Your task to perform on an android device: install app "Nova Launcher" Image 0: 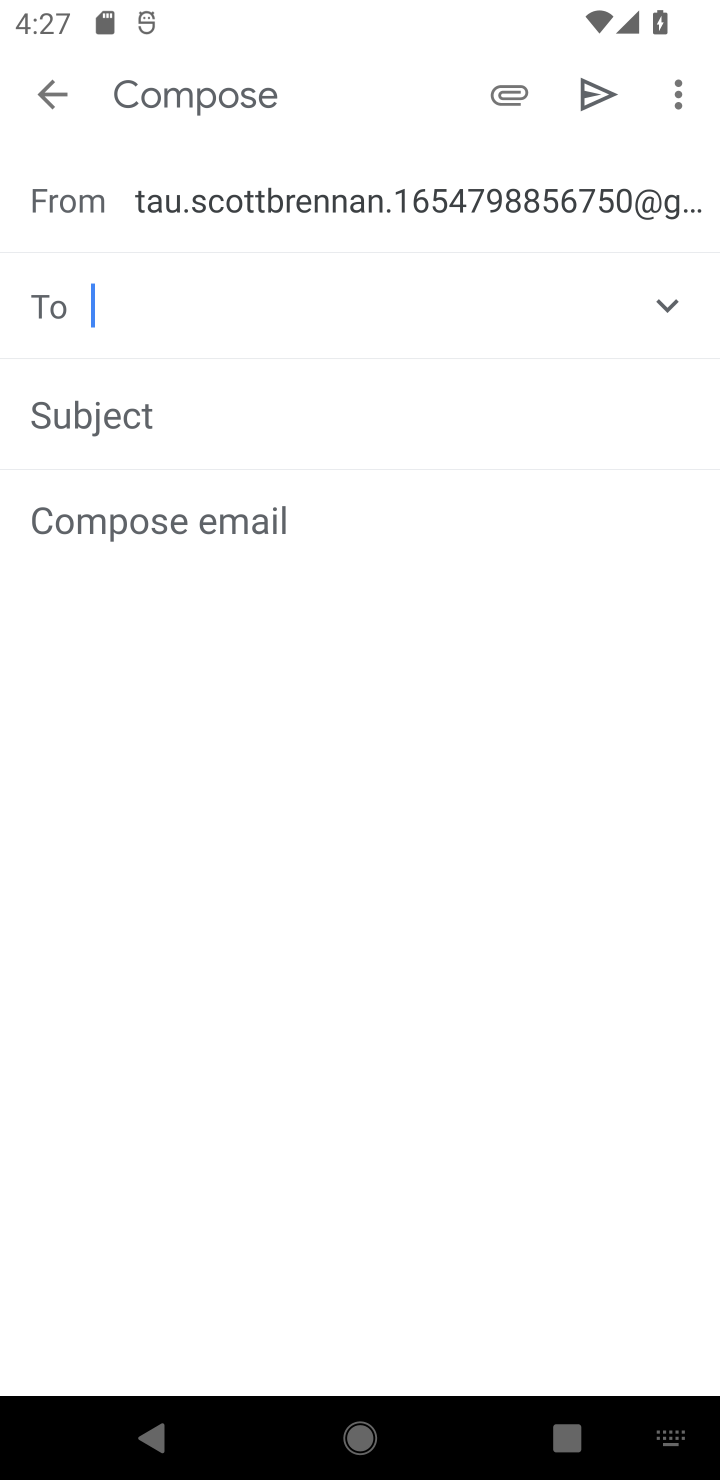
Step 0: press home button
Your task to perform on an android device: install app "Nova Launcher" Image 1: 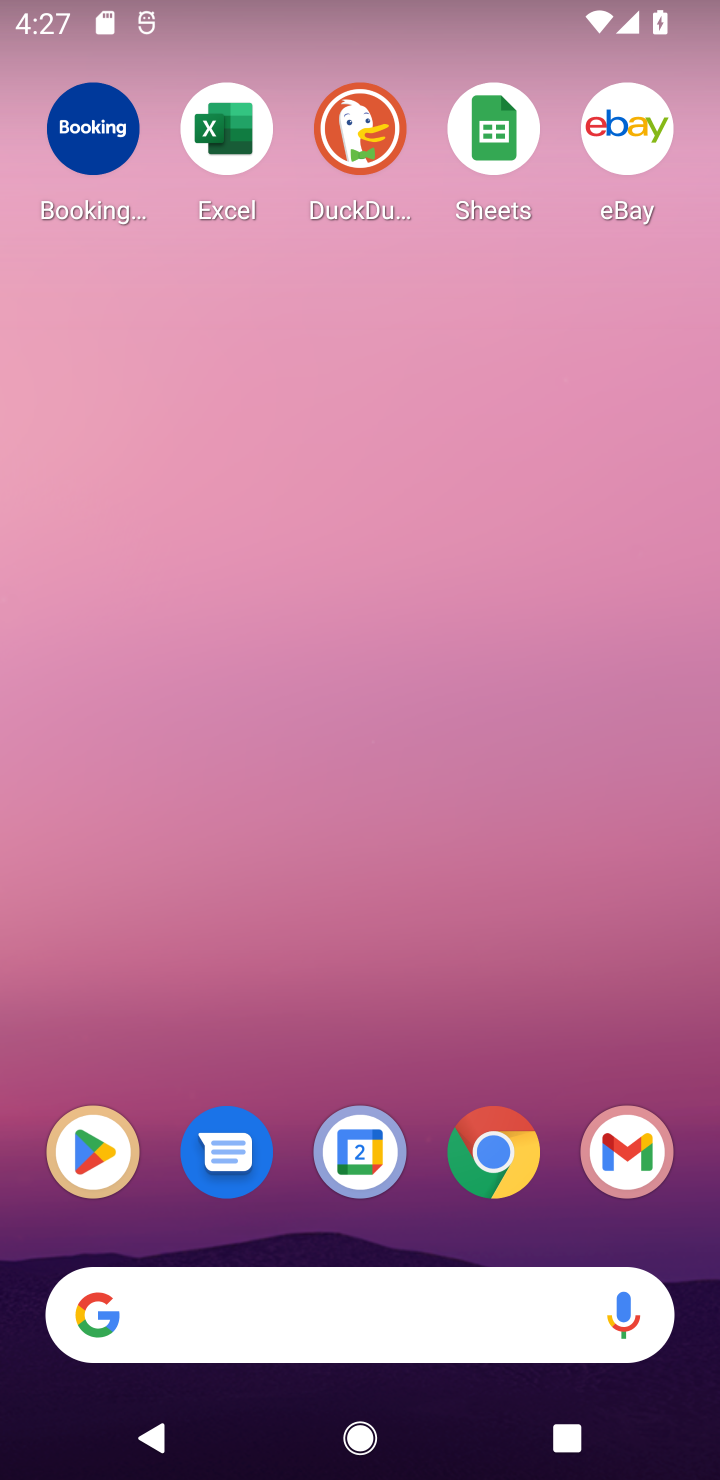
Step 1: drag from (369, 1251) to (300, 168)
Your task to perform on an android device: install app "Nova Launcher" Image 2: 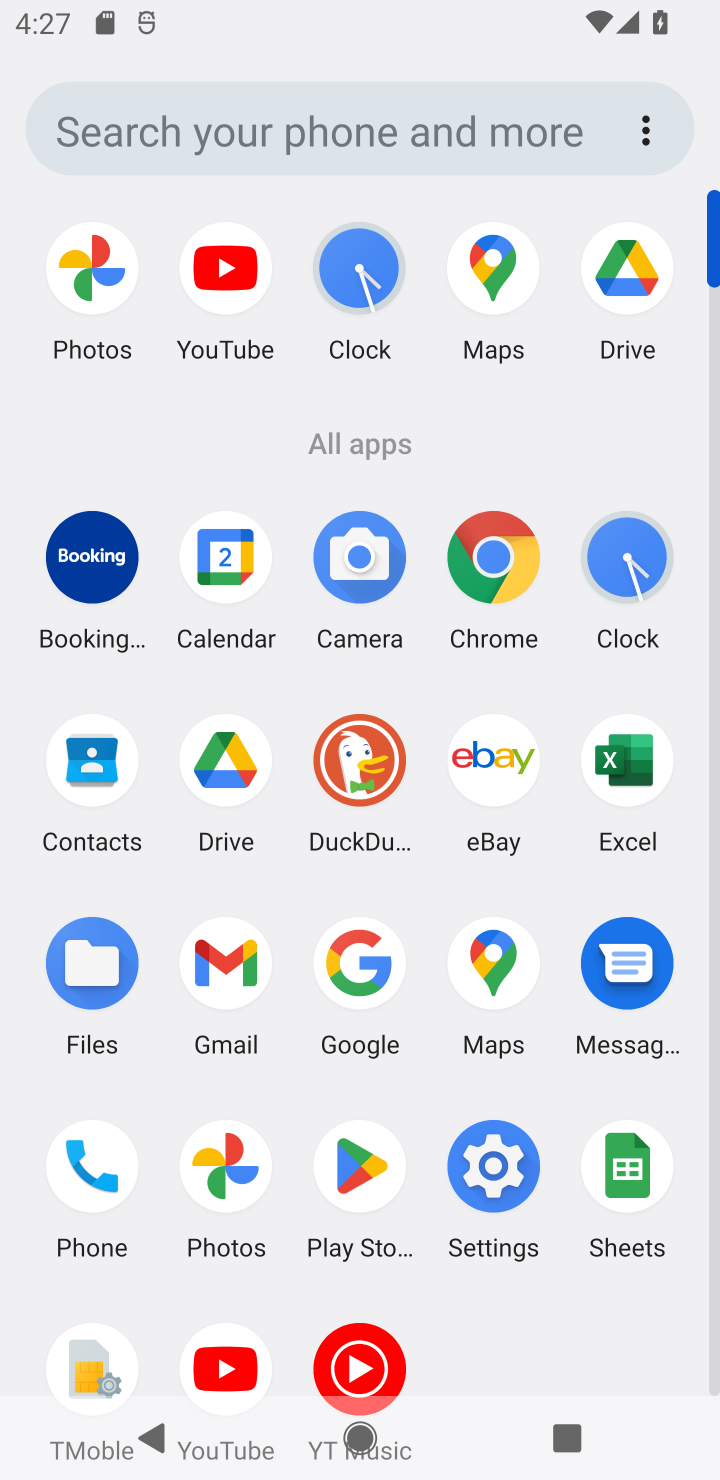
Step 2: click (314, 1164)
Your task to perform on an android device: install app "Nova Launcher" Image 3: 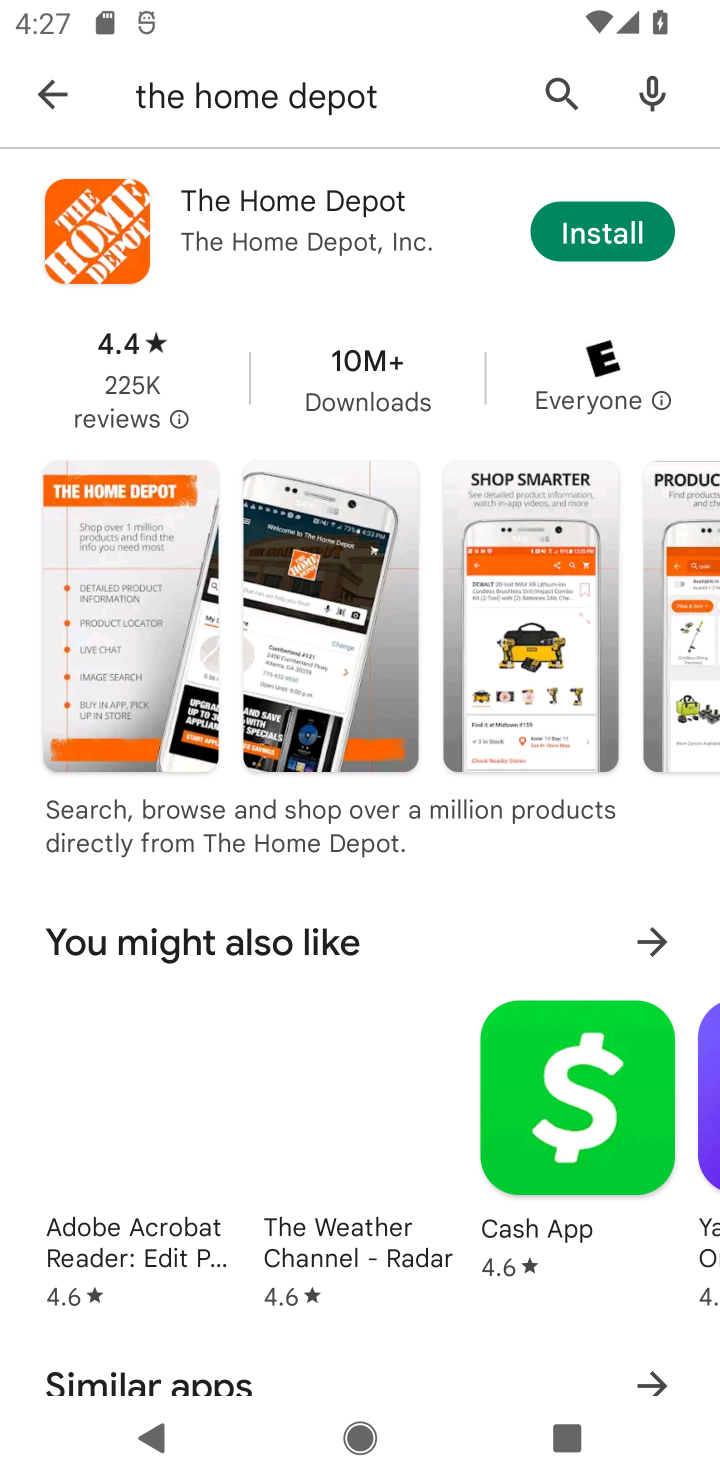
Step 3: click (53, 115)
Your task to perform on an android device: install app "Nova Launcher" Image 4: 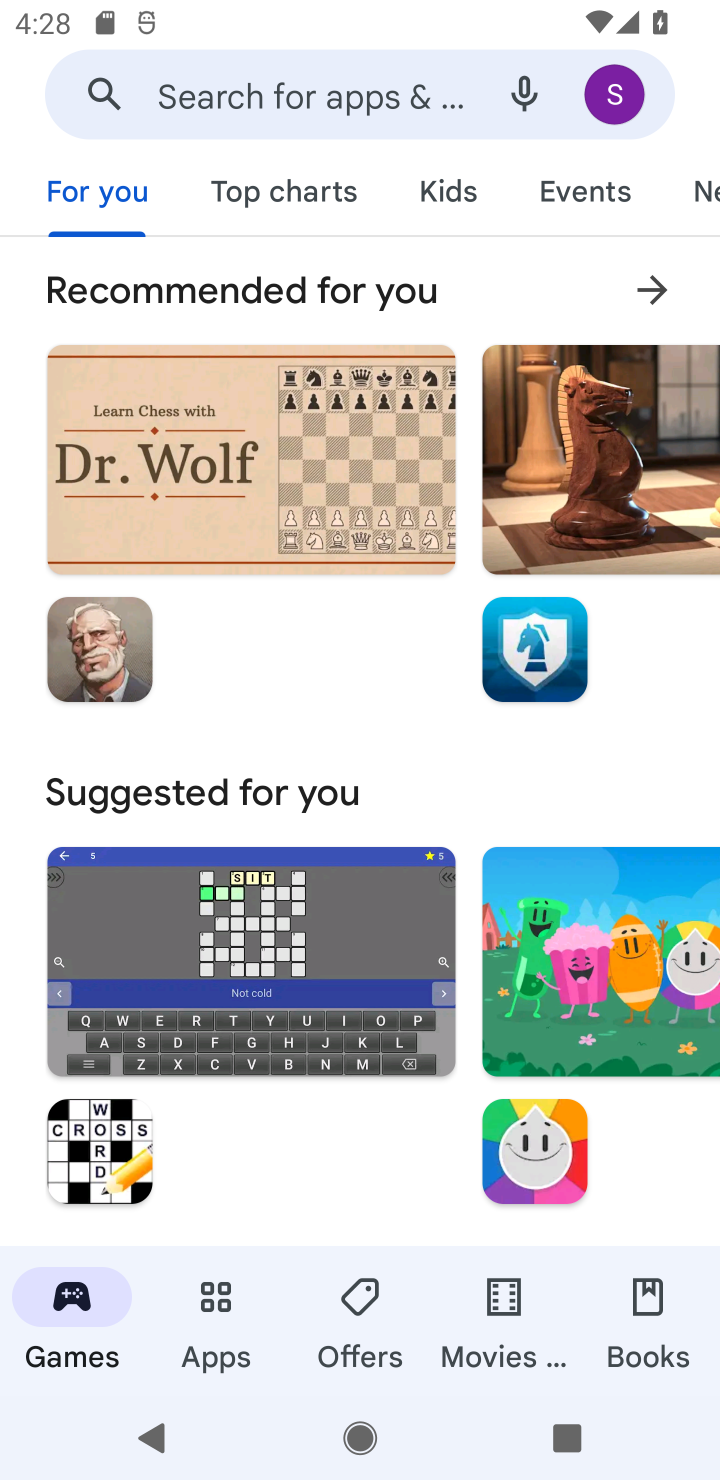
Step 4: click (184, 110)
Your task to perform on an android device: install app "Nova Launcher" Image 5: 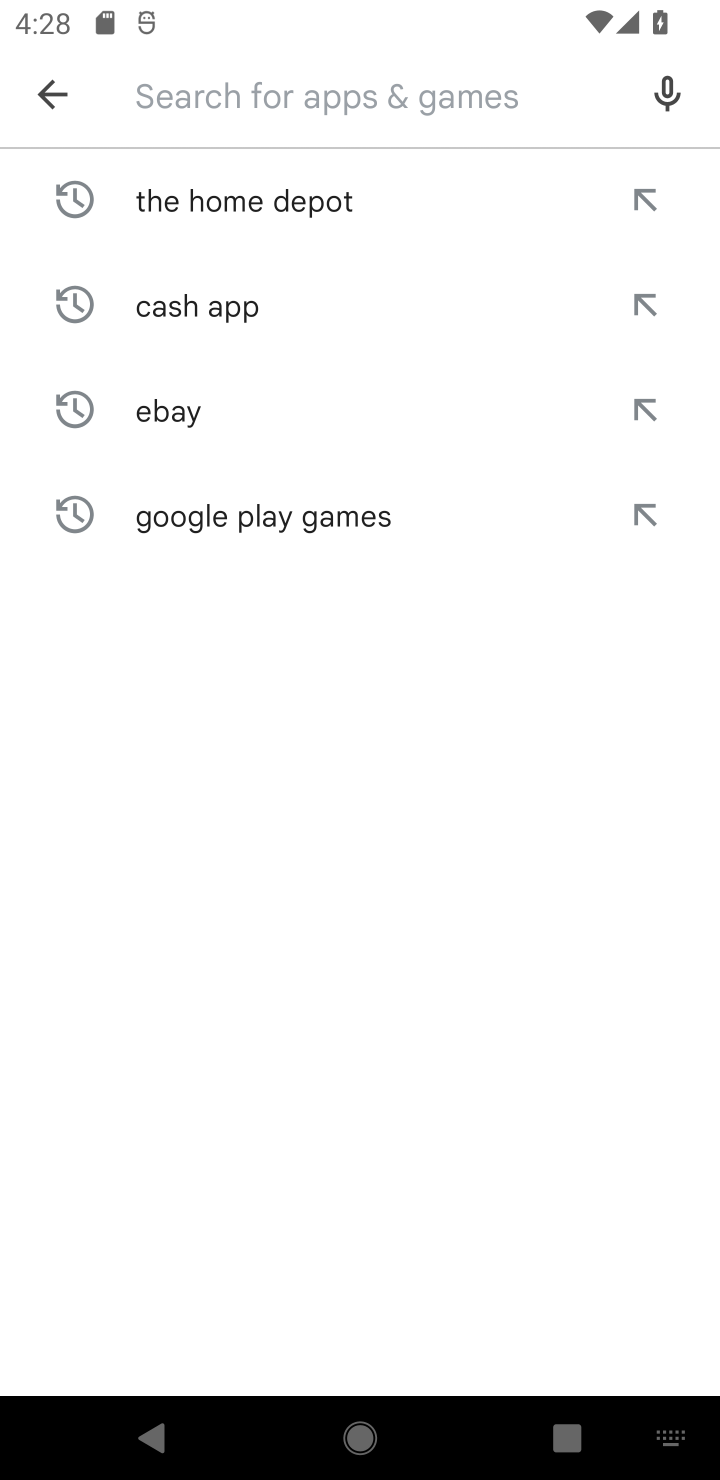
Step 5: type "Nova Launcher"
Your task to perform on an android device: install app "Nova Launcher" Image 6: 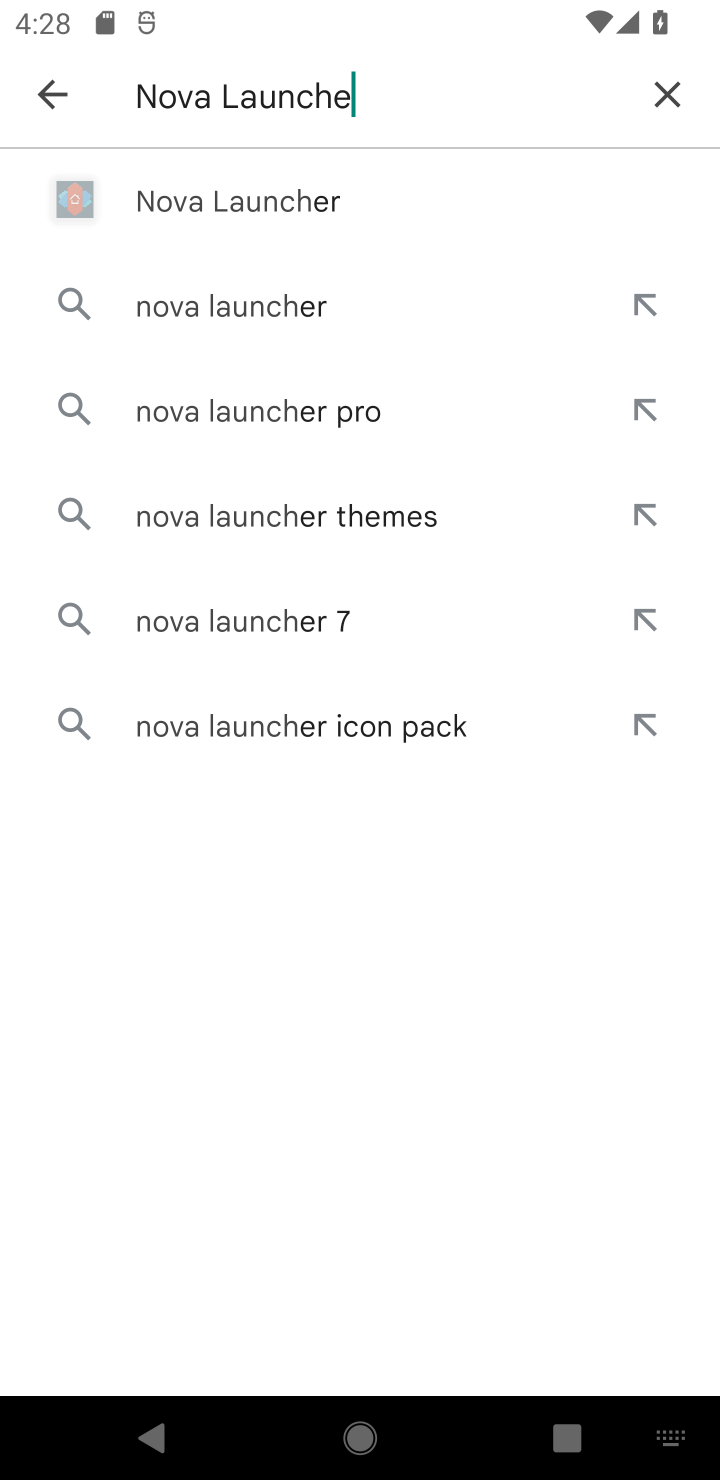
Step 6: type ""
Your task to perform on an android device: install app "Nova Launcher" Image 7: 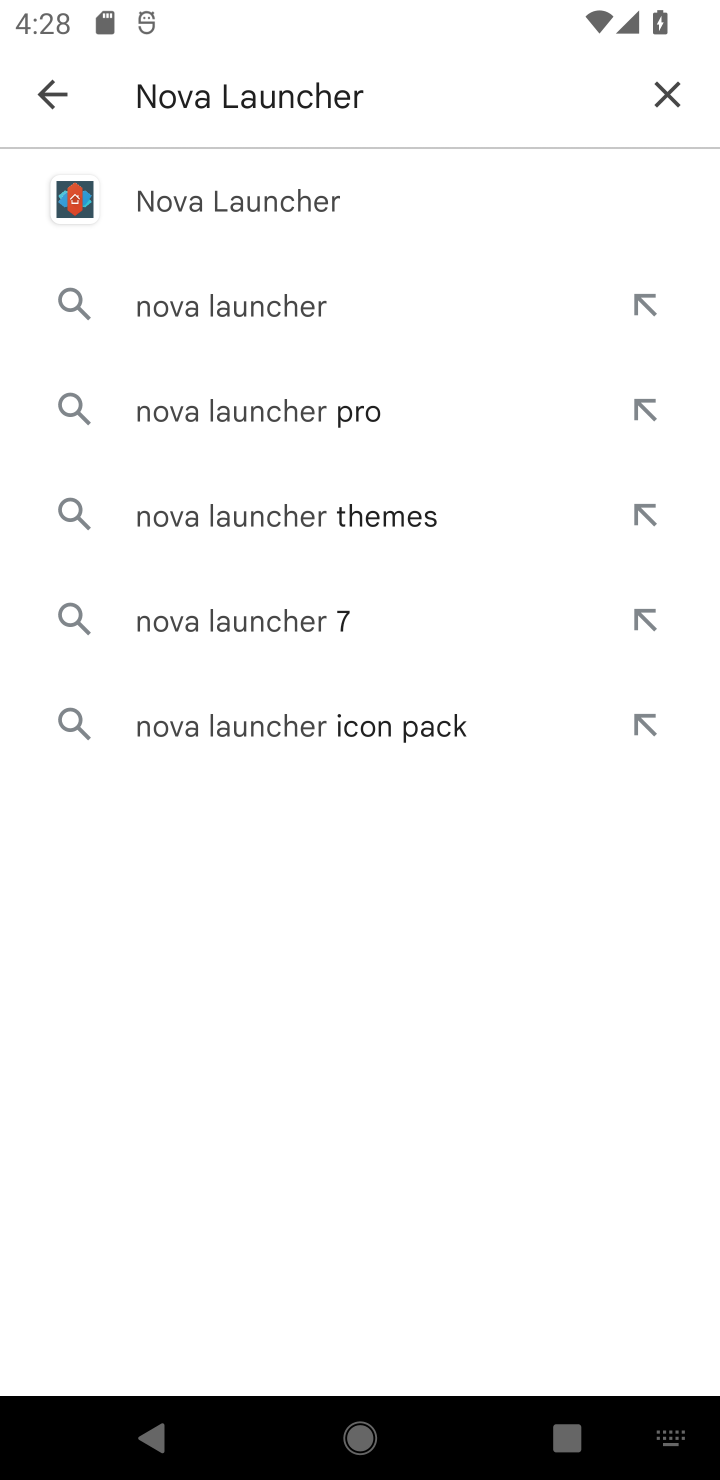
Step 7: click (259, 189)
Your task to perform on an android device: install app "Nova Launcher" Image 8: 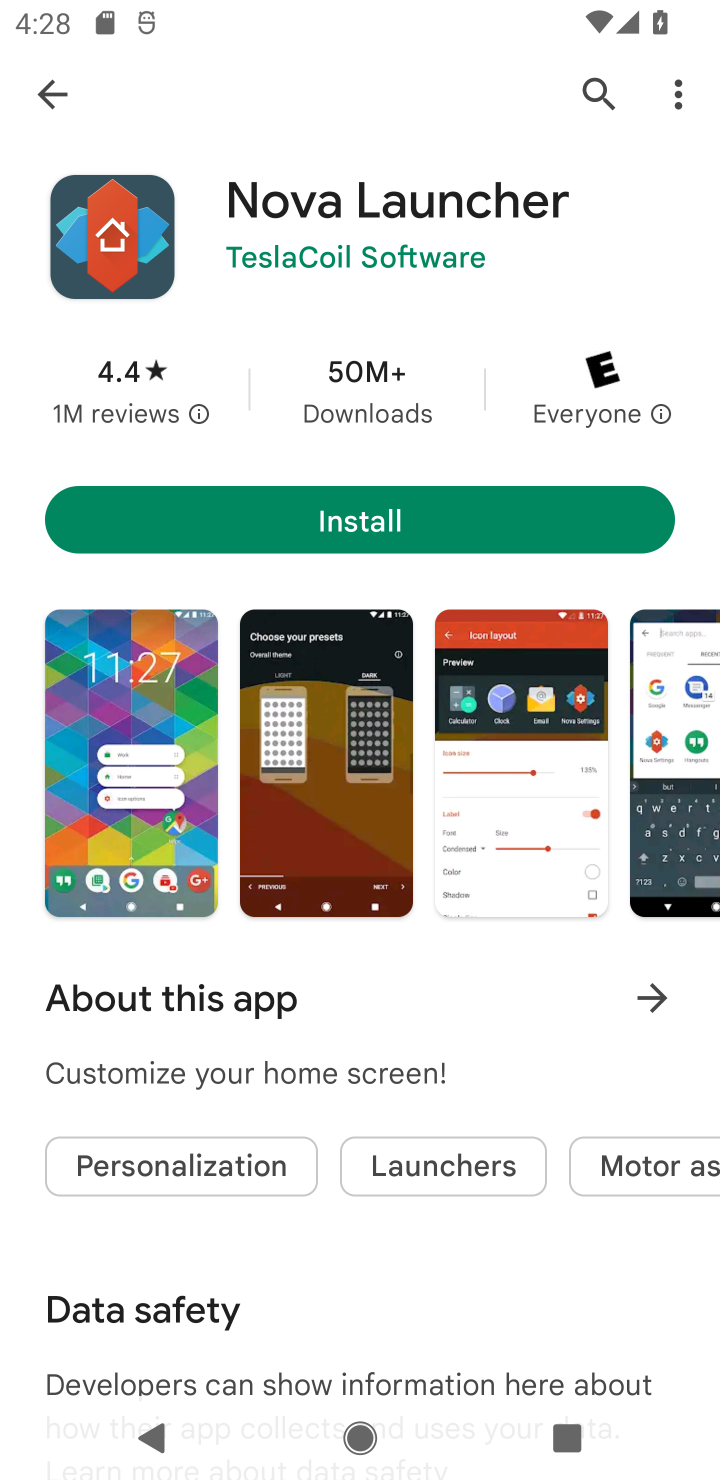
Step 8: click (272, 539)
Your task to perform on an android device: install app "Nova Launcher" Image 9: 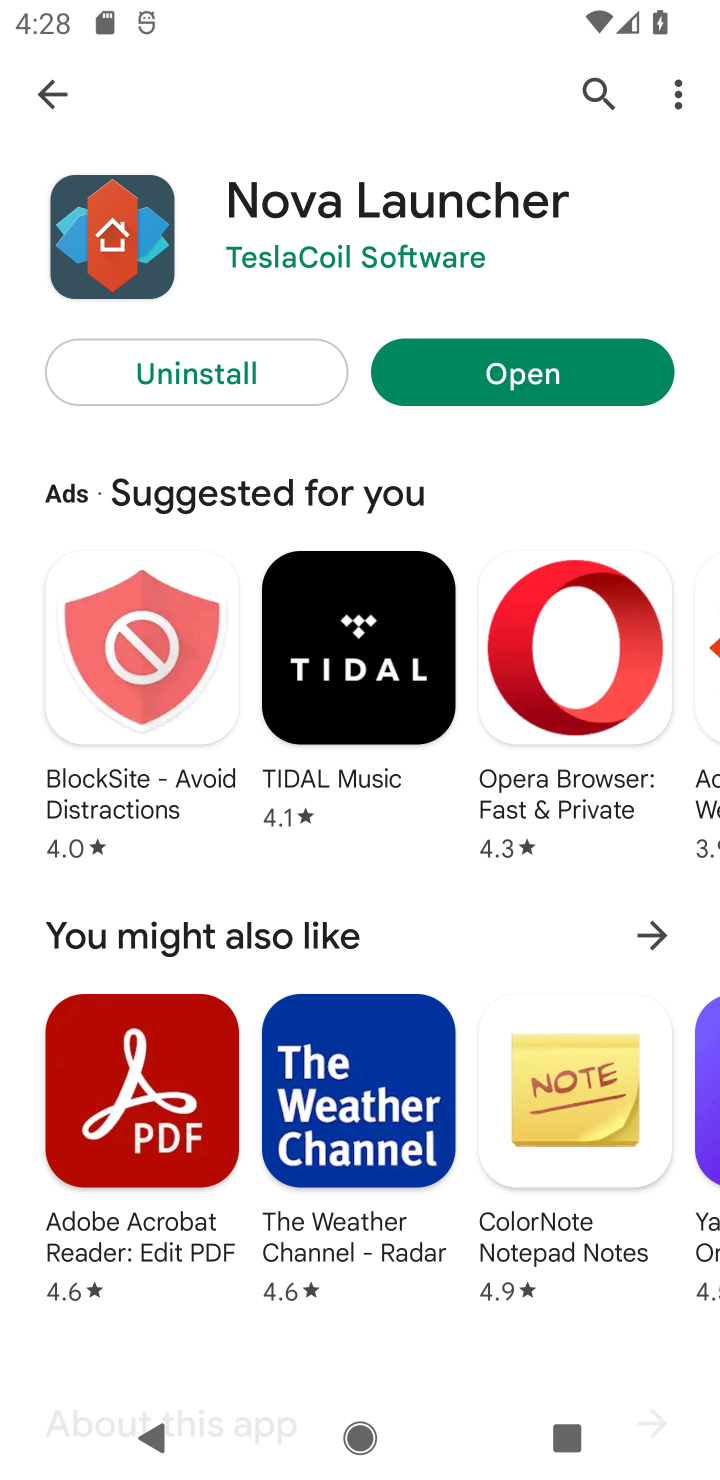
Step 9: task complete